Your task to perform on an android device: Open accessibility settings Image 0: 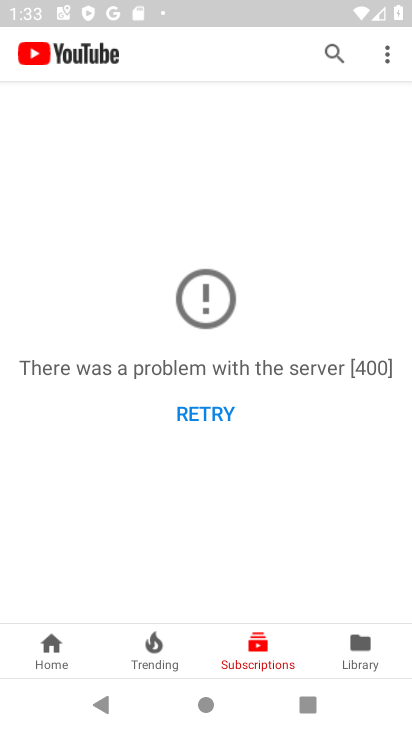
Step 0: press back button
Your task to perform on an android device: Open accessibility settings Image 1: 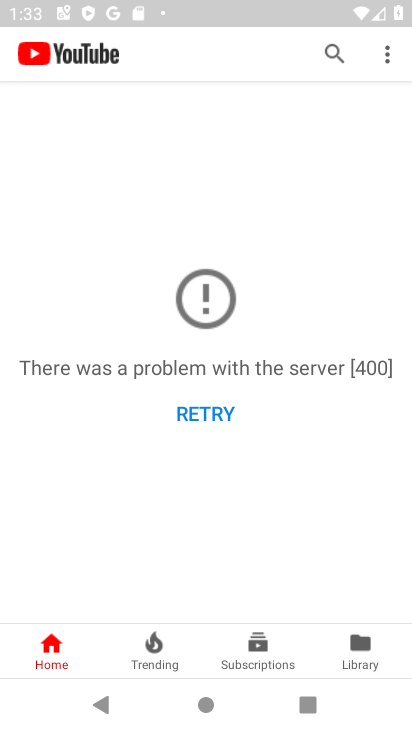
Step 1: press home button
Your task to perform on an android device: Open accessibility settings Image 2: 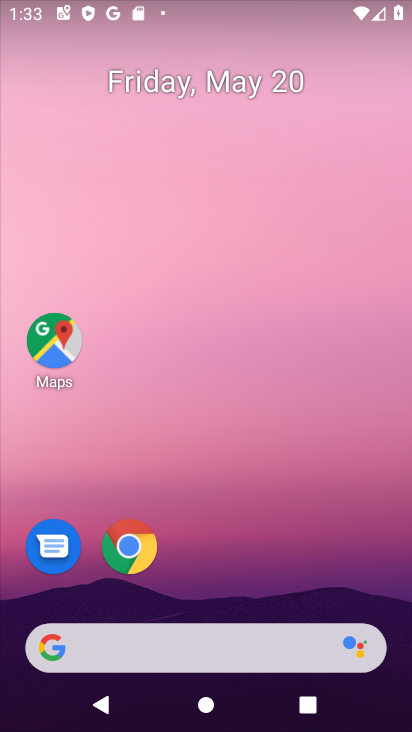
Step 2: drag from (319, 595) to (300, 13)
Your task to perform on an android device: Open accessibility settings Image 3: 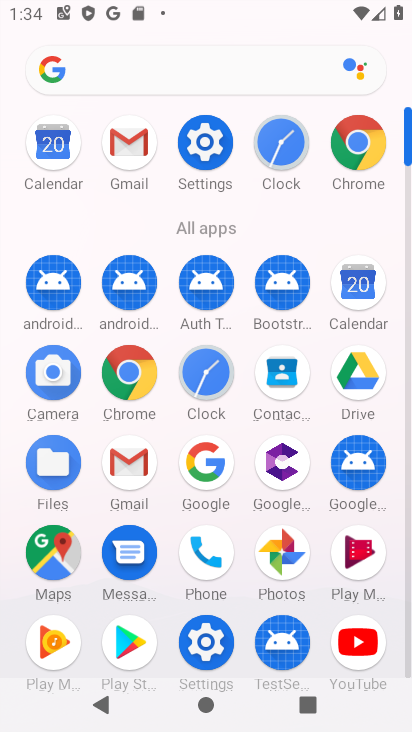
Step 3: click (218, 135)
Your task to perform on an android device: Open accessibility settings Image 4: 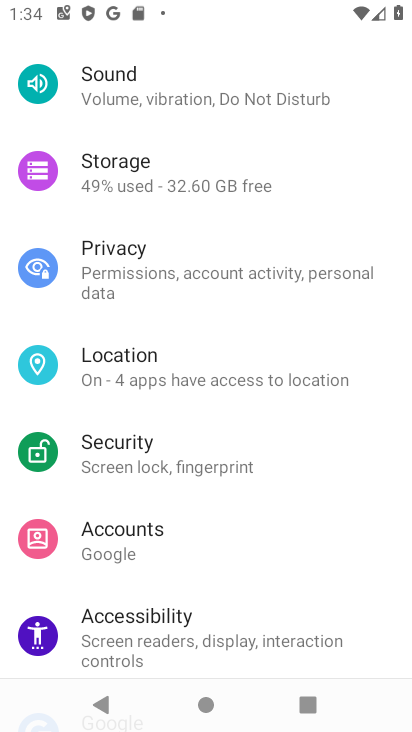
Step 4: click (166, 634)
Your task to perform on an android device: Open accessibility settings Image 5: 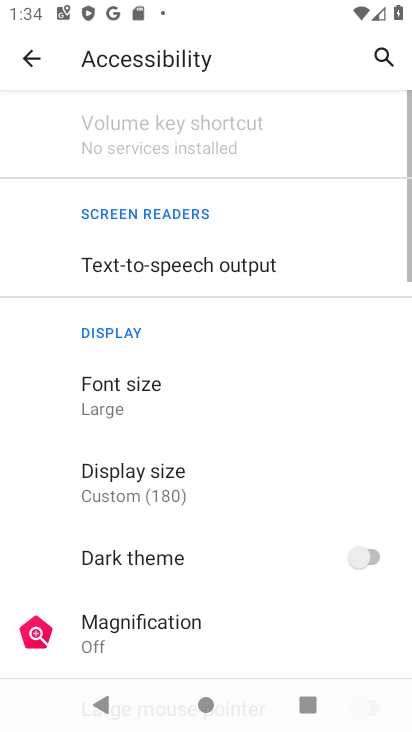
Step 5: task complete